Your task to perform on an android device: find photos in the google photos app Image 0: 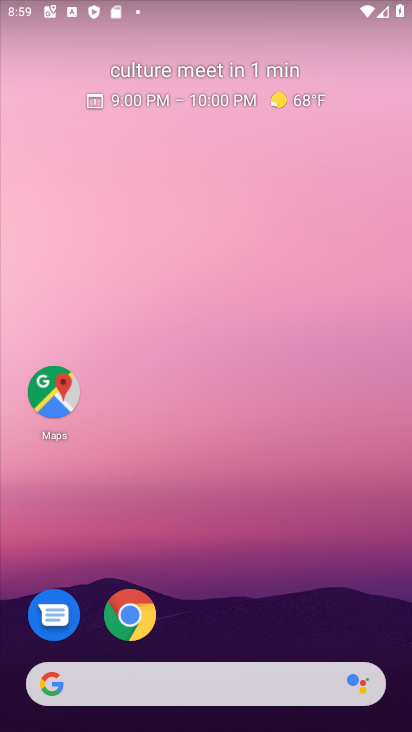
Step 0: drag from (405, 697) to (365, 88)
Your task to perform on an android device: find photos in the google photos app Image 1: 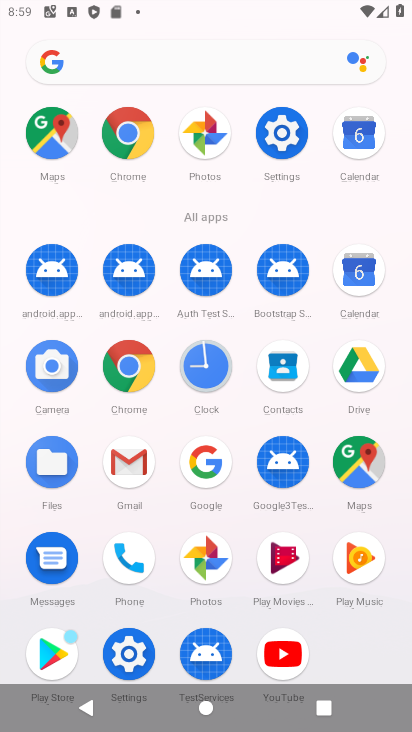
Step 1: click (198, 138)
Your task to perform on an android device: find photos in the google photos app Image 2: 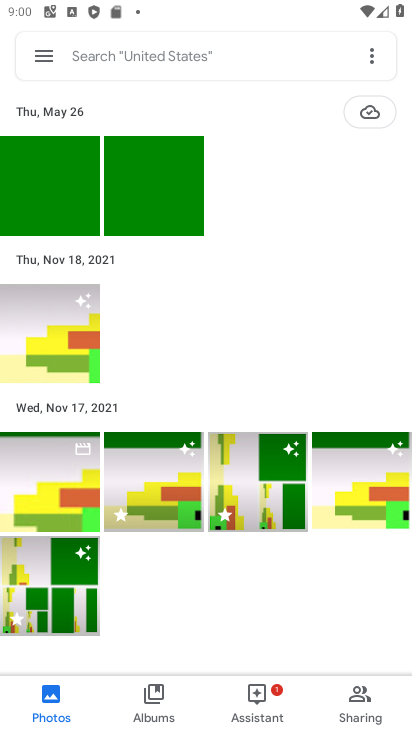
Step 2: task complete